Your task to perform on an android device: turn notification dots off Image 0: 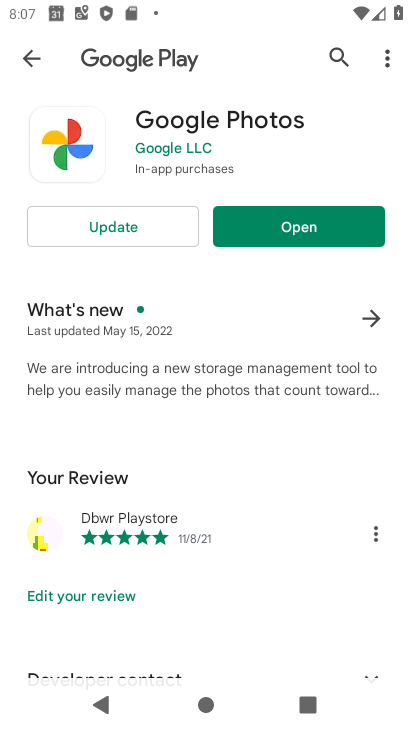
Step 0: press home button
Your task to perform on an android device: turn notification dots off Image 1: 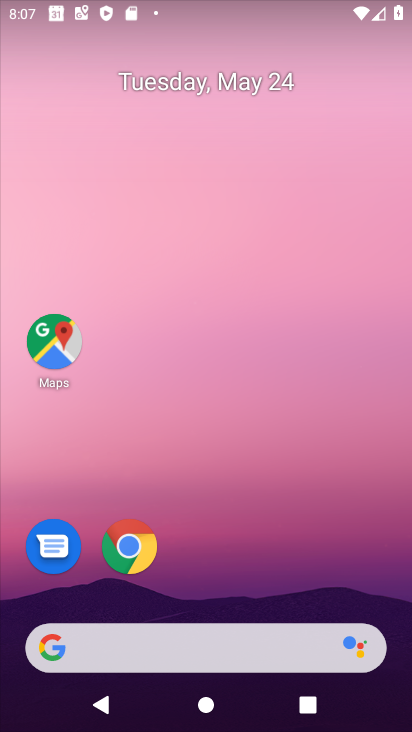
Step 1: drag from (220, 531) to (258, 0)
Your task to perform on an android device: turn notification dots off Image 2: 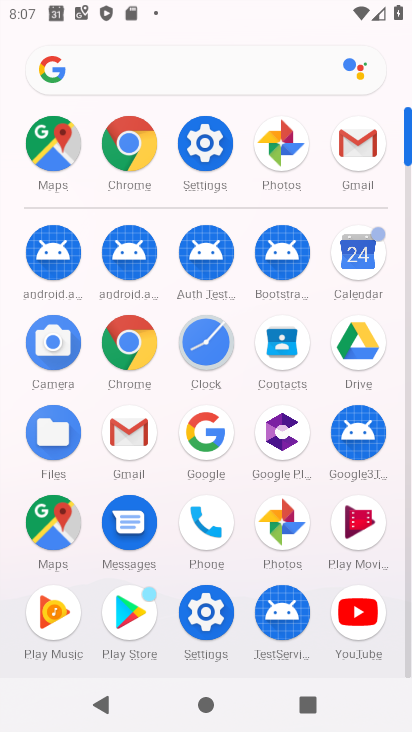
Step 2: click (215, 137)
Your task to perform on an android device: turn notification dots off Image 3: 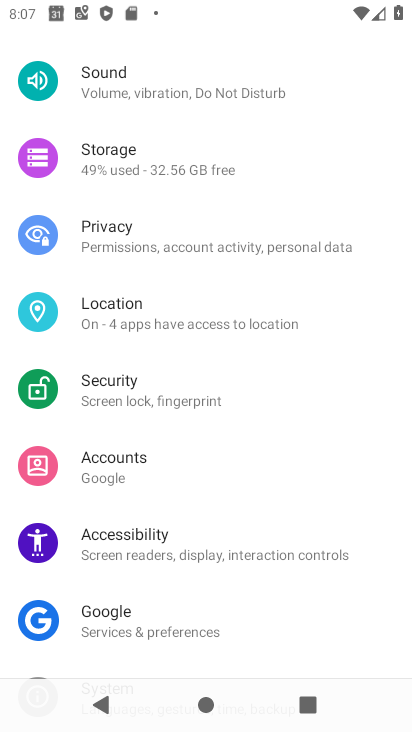
Step 3: drag from (215, 146) to (190, 731)
Your task to perform on an android device: turn notification dots off Image 4: 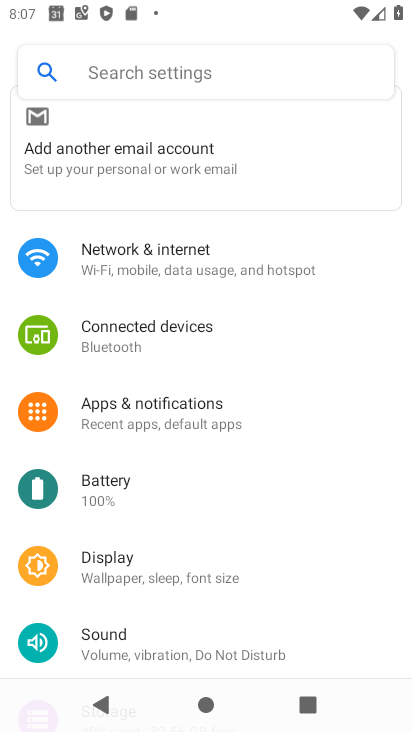
Step 4: click (212, 409)
Your task to perform on an android device: turn notification dots off Image 5: 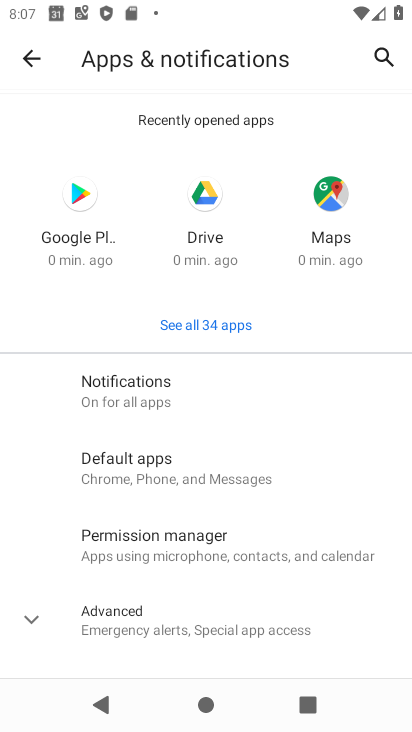
Step 5: click (212, 408)
Your task to perform on an android device: turn notification dots off Image 6: 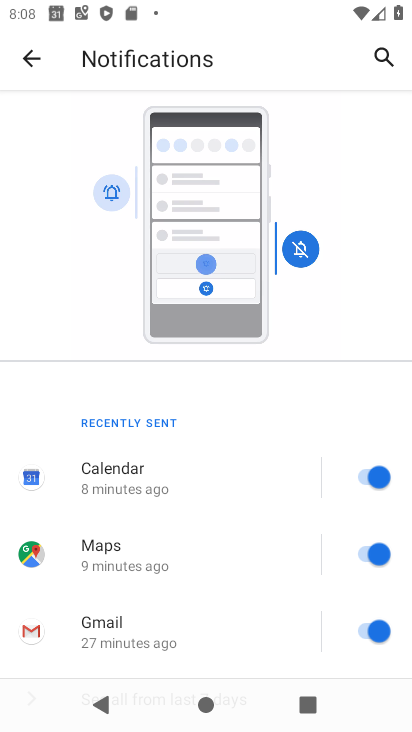
Step 6: drag from (199, 593) to (257, 122)
Your task to perform on an android device: turn notification dots off Image 7: 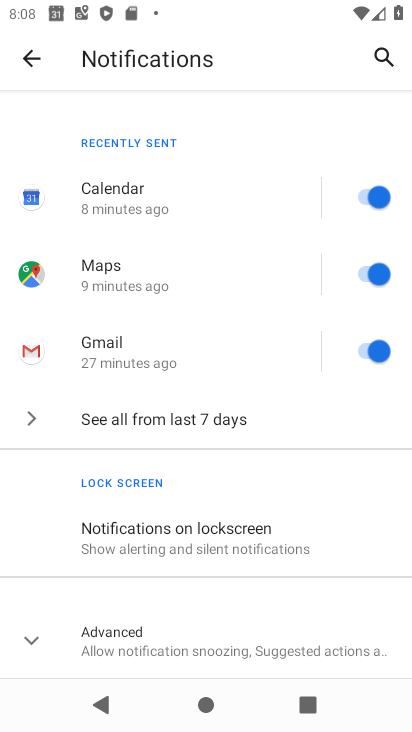
Step 7: click (34, 639)
Your task to perform on an android device: turn notification dots off Image 8: 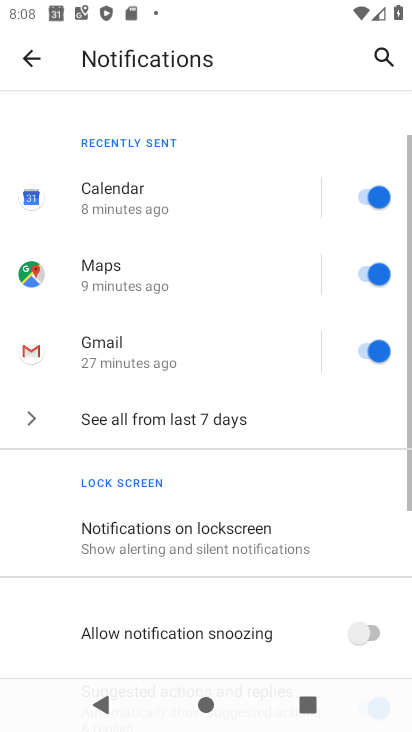
Step 8: drag from (211, 627) to (234, 292)
Your task to perform on an android device: turn notification dots off Image 9: 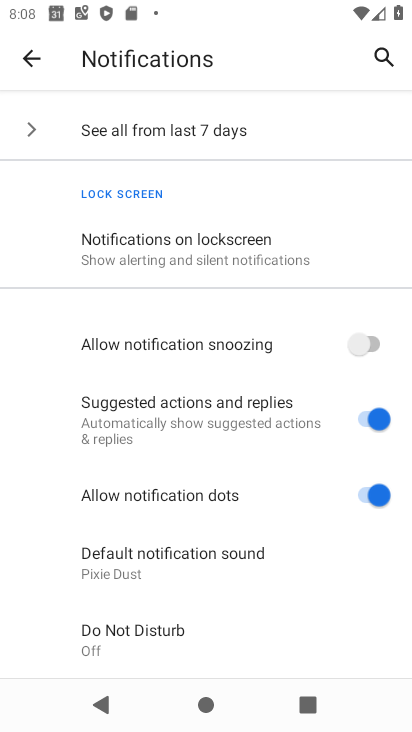
Step 9: click (364, 491)
Your task to perform on an android device: turn notification dots off Image 10: 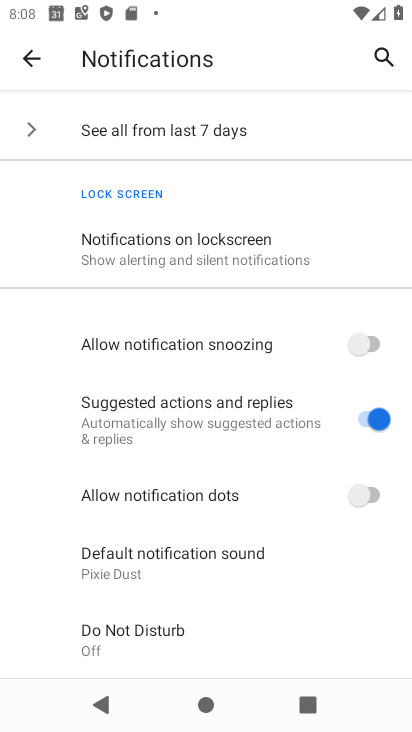
Step 10: task complete